Your task to perform on an android device: Open CNN.com Image 0: 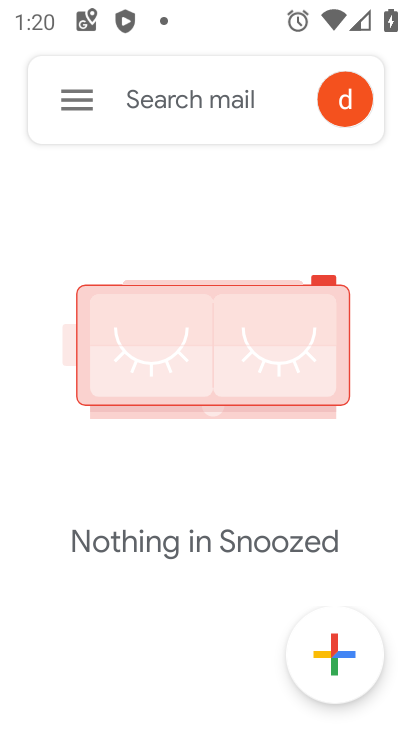
Step 0: press home button
Your task to perform on an android device: Open CNN.com Image 1: 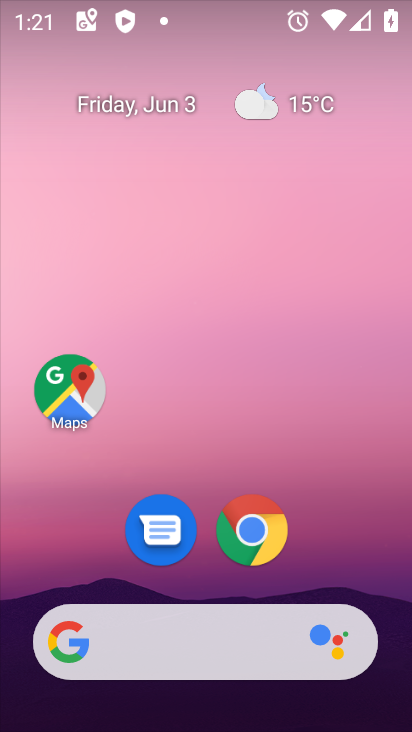
Step 1: click (253, 650)
Your task to perform on an android device: Open CNN.com Image 2: 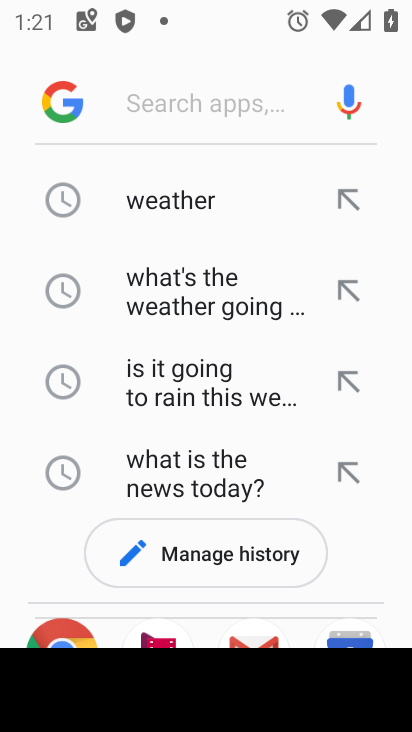
Step 2: type "CNN.com"
Your task to perform on an android device: Open CNN.com Image 3: 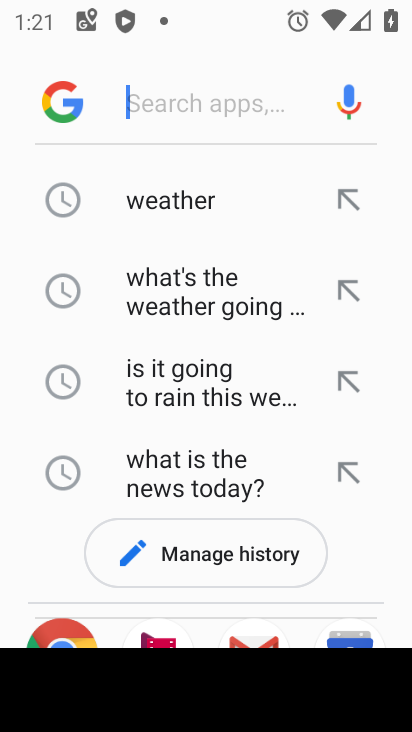
Step 3: click (216, 108)
Your task to perform on an android device: Open CNN.com Image 4: 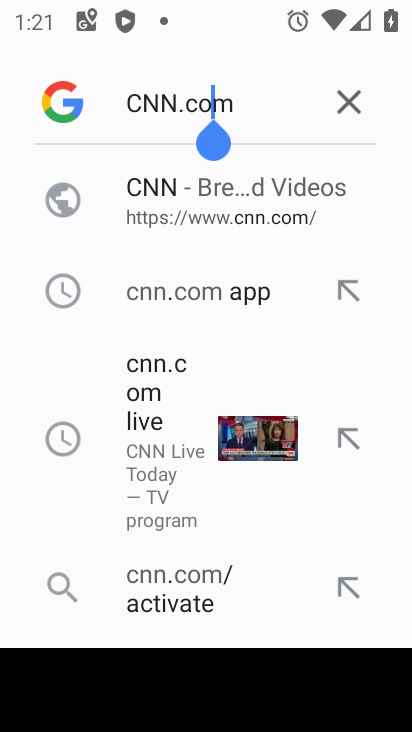
Step 4: click (197, 193)
Your task to perform on an android device: Open CNN.com Image 5: 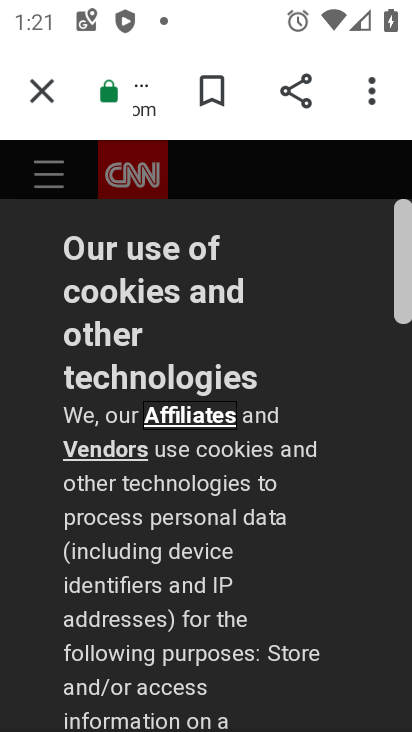
Step 5: click (268, 177)
Your task to perform on an android device: Open CNN.com Image 6: 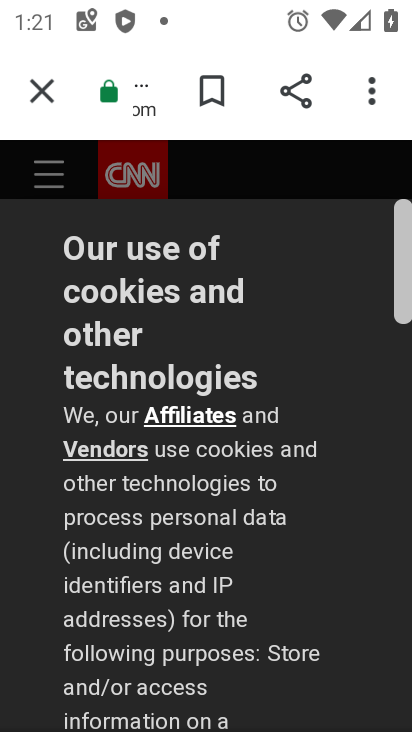
Step 6: drag from (405, 263) to (356, 165)
Your task to perform on an android device: Open CNN.com Image 7: 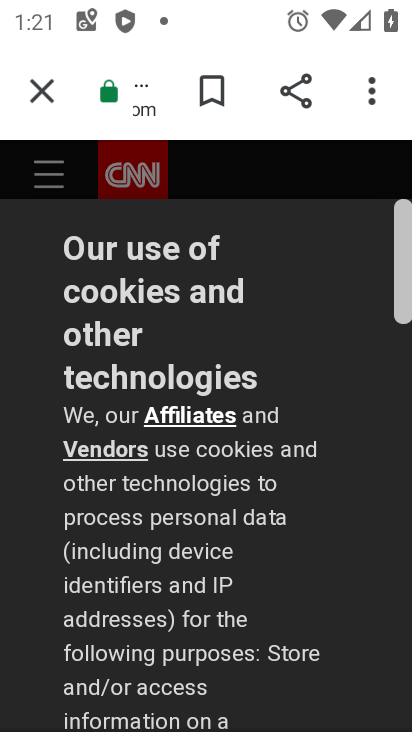
Step 7: click (354, 165)
Your task to perform on an android device: Open CNN.com Image 8: 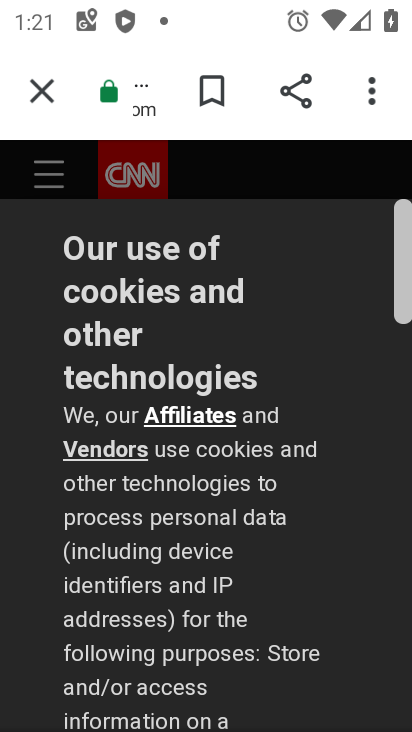
Step 8: click (354, 165)
Your task to perform on an android device: Open CNN.com Image 9: 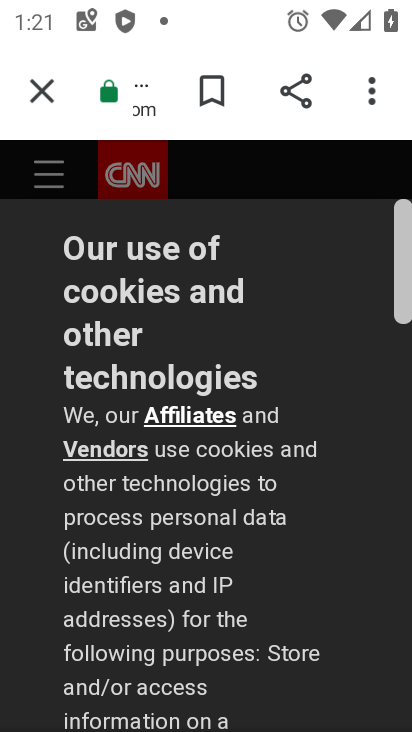
Step 9: drag from (403, 292) to (288, 703)
Your task to perform on an android device: Open CNN.com Image 10: 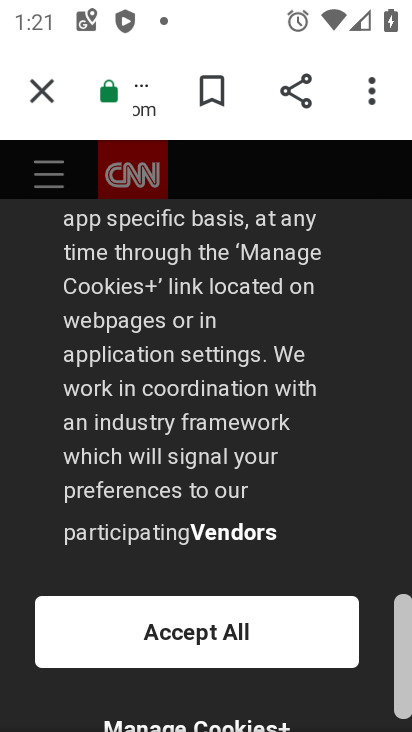
Step 10: click (205, 588)
Your task to perform on an android device: Open CNN.com Image 11: 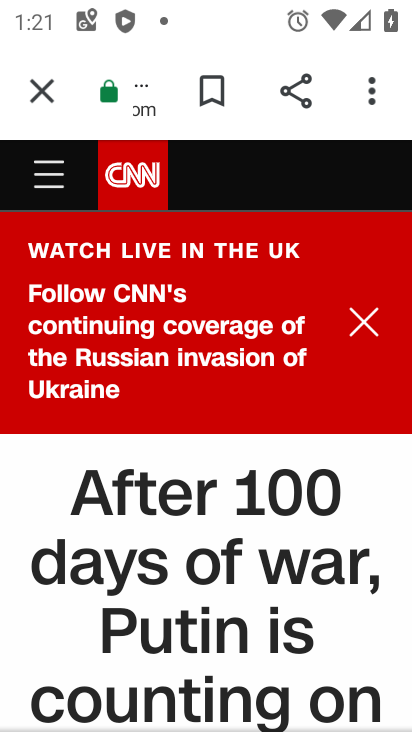
Step 11: task complete